Your task to perform on an android device: change the upload size in google photos Image 0: 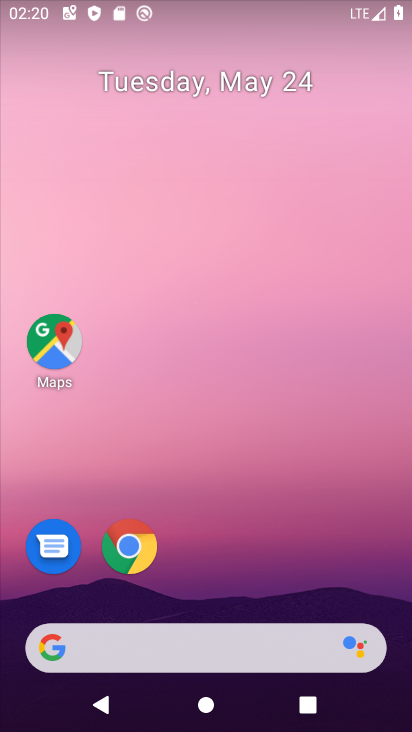
Step 0: drag from (193, 609) to (286, 98)
Your task to perform on an android device: change the upload size in google photos Image 1: 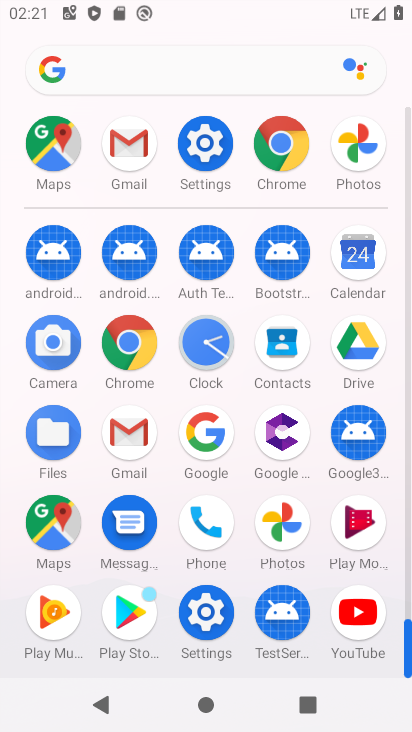
Step 1: click (288, 511)
Your task to perform on an android device: change the upload size in google photos Image 2: 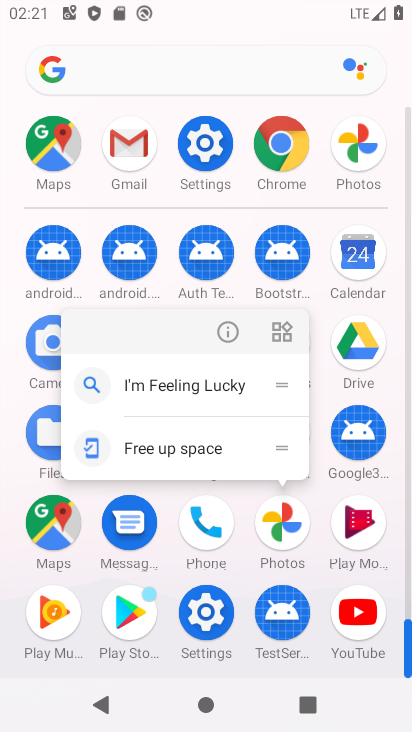
Step 2: click (224, 333)
Your task to perform on an android device: change the upload size in google photos Image 3: 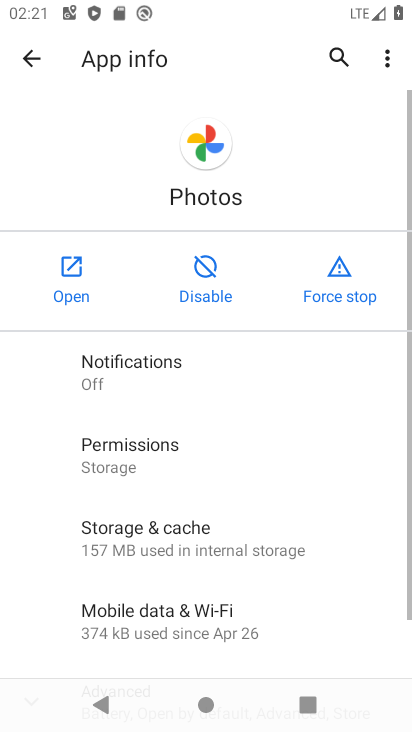
Step 3: click (64, 283)
Your task to perform on an android device: change the upload size in google photos Image 4: 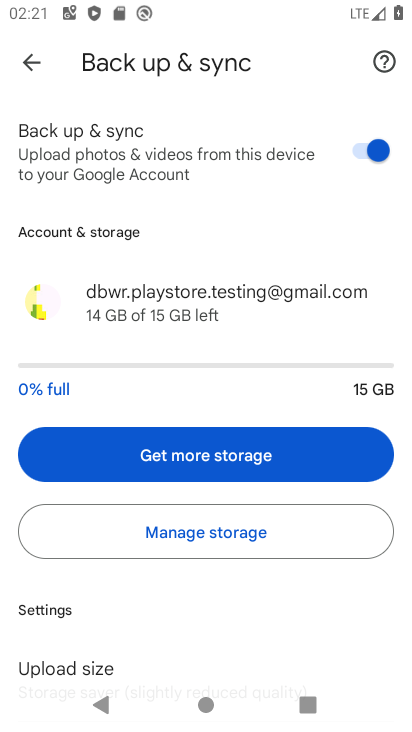
Step 4: drag from (137, 623) to (279, 28)
Your task to perform on an android device: change the upload size in google photos Image 5: 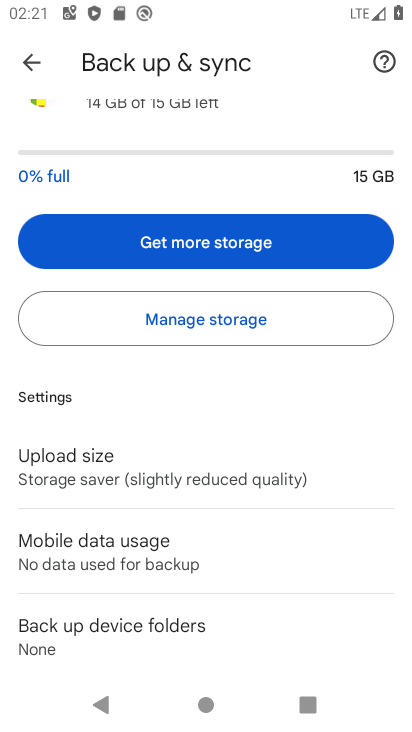
Step 5: drag from (211, 242) to (357, 665)
Your task to perform on an android device: change the upload size in google photos Image 6: 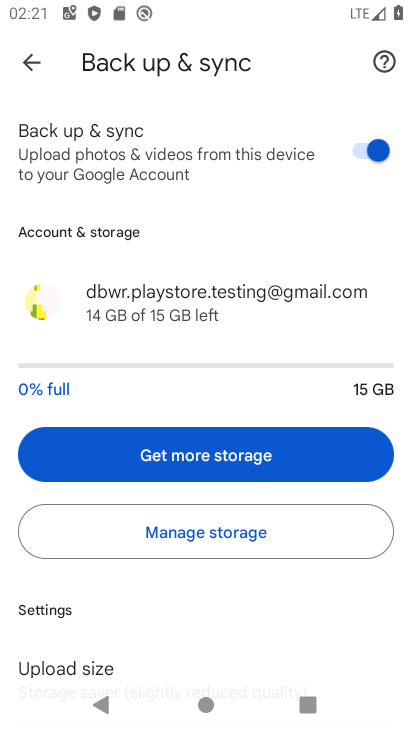
Step 6: drag from (232, 604) to (274, 190)
Your task to perform on an android device: change the upload size in google photos Image 7: 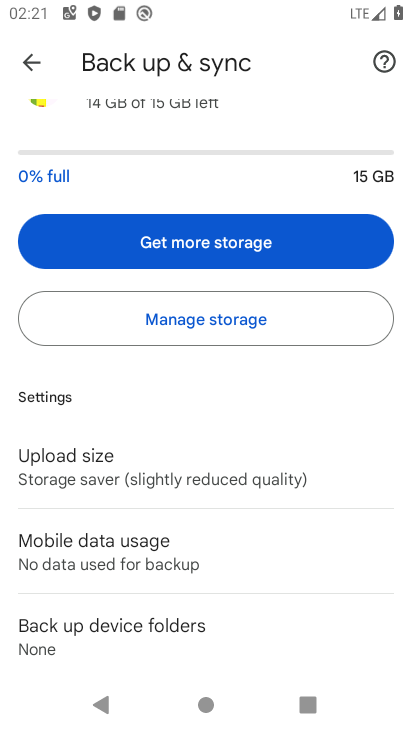
Step 7: drag from (291, 359) to (332, 409)
Your task to perform on an android device: change the upload size in google photos Image 8: 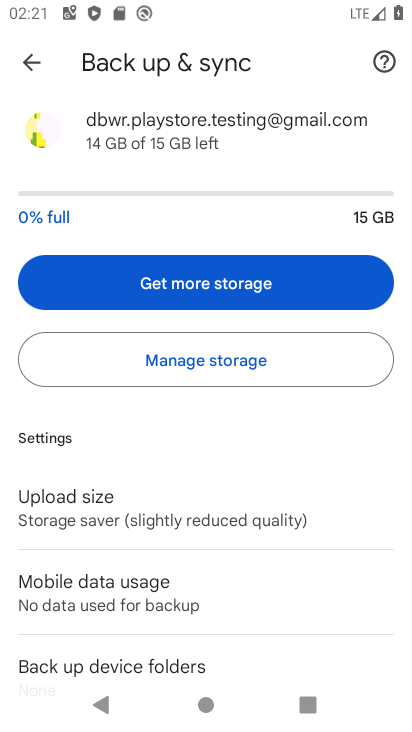
Step 8: click (125, 499)
Your task to perform on an android device: change the upload size in google photos Image 9: 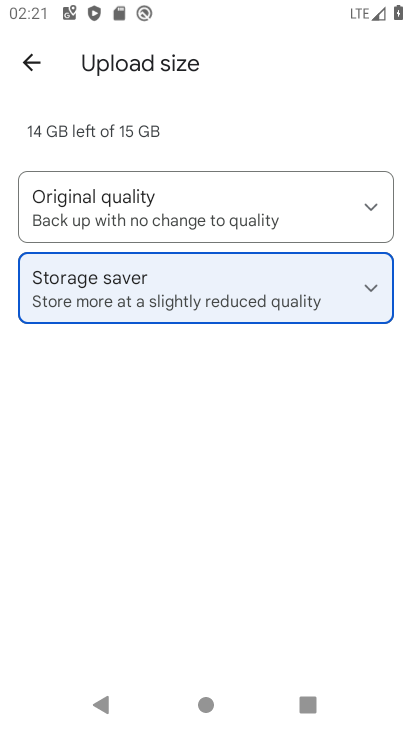
Step 9: click (237, 211)
Your task to perform on an android device: change the upload size in google photos Image 10: 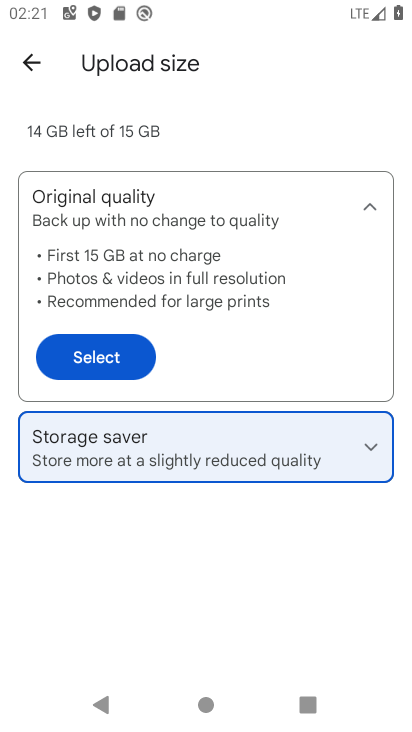
Step 10: click (116, 371)
Your task to perform on an android device: change the upload size in google photos Image 11: 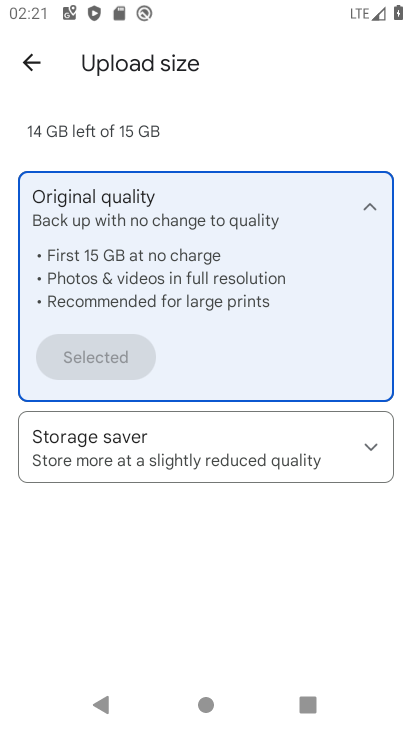
Step 11: task complete